Your task to perform on an android device: toggle javascript in the chrome app Image 0: 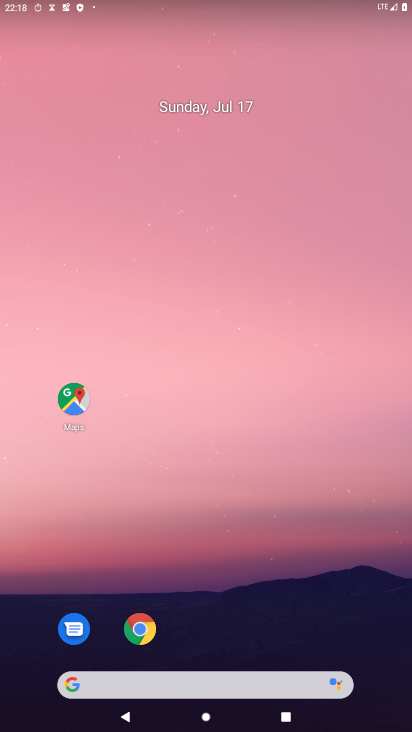
Step 0: drag from (242, 727) to (254, 41)
Your task to perform on an android device: toggle javascript in the chrome app Image 1: 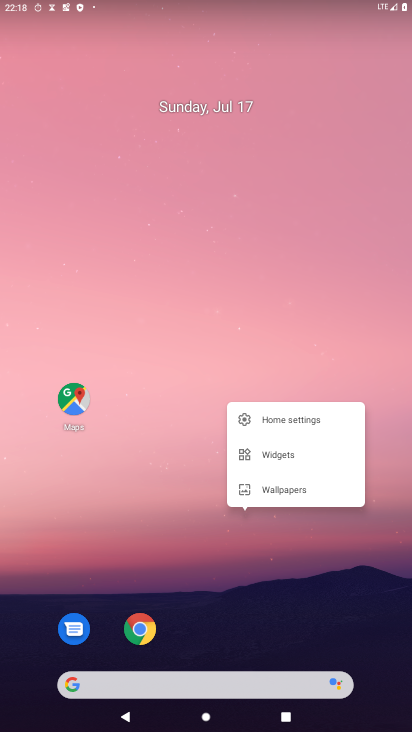
Step 1: click (154, 301)
Your task to perform on an android device: toggle javascript in the chrome app Image 2: 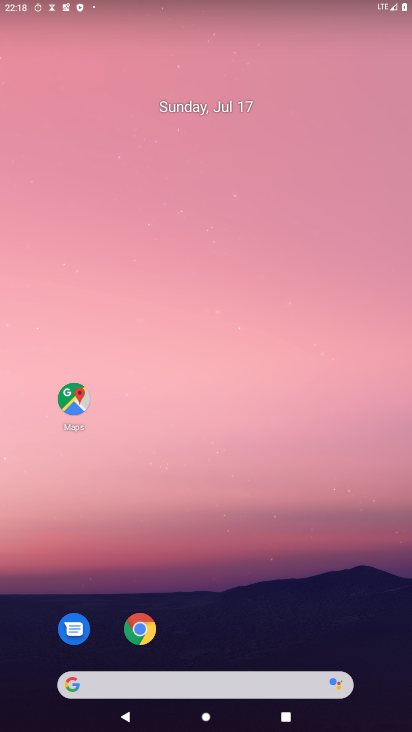
Step 2: click (139, 624)
Your task to perform on an android device: toggle javascript in the chrome app Image 3: 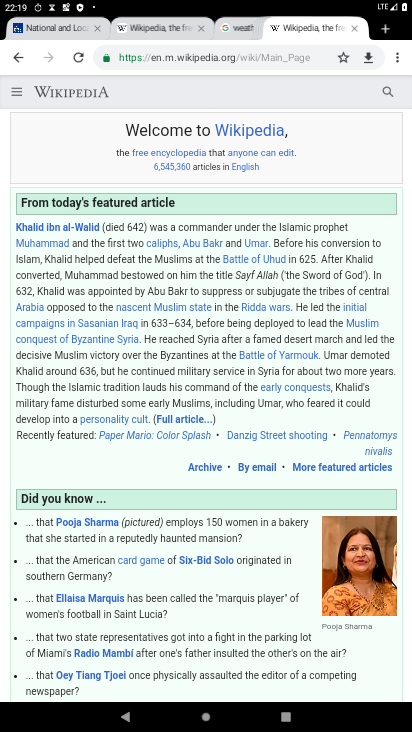
Step 3: click (397, 61)
Your task to perform on an android device: toggle javascript in the chrome app Image 4: 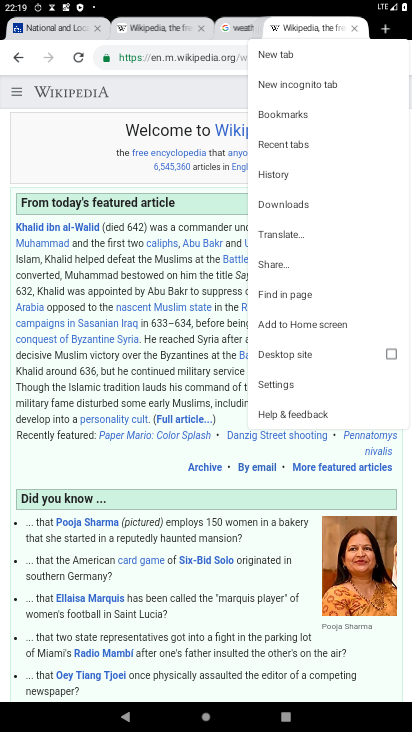
Step 4: click (275, 384)
Your task to perform on an android device: toggle javascript in the chrome app Image 5: 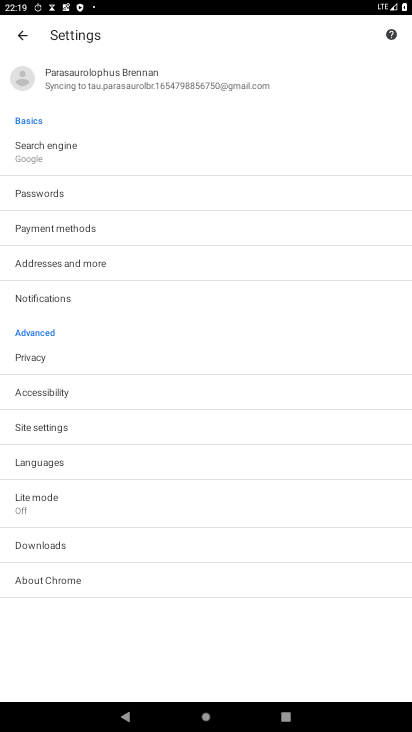
Step 5: click (37, 426)
Your task to perform on an android device: toggle javascript in the chrome app Image 6: 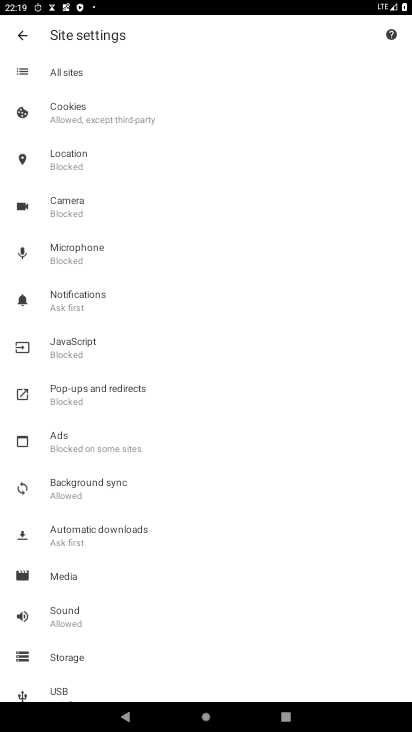
Step 6: click (62, 346)
Your task to perform on an android device: toggle javascript in the chrome app Image 7: 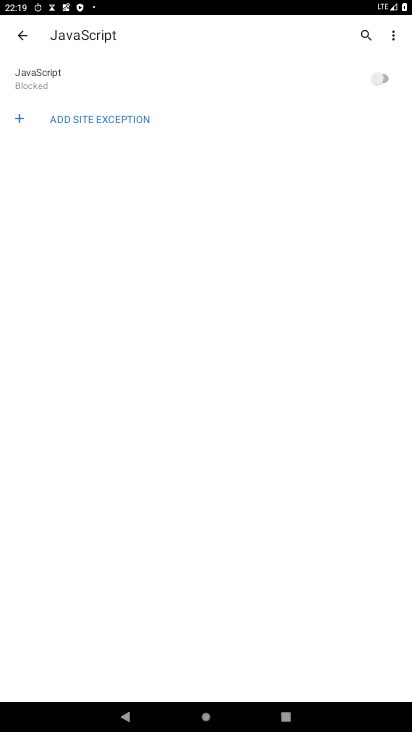
Step 7: click (387, 74)
Your task to perform on an android device: toggle javascript in the chrome app Image 8: 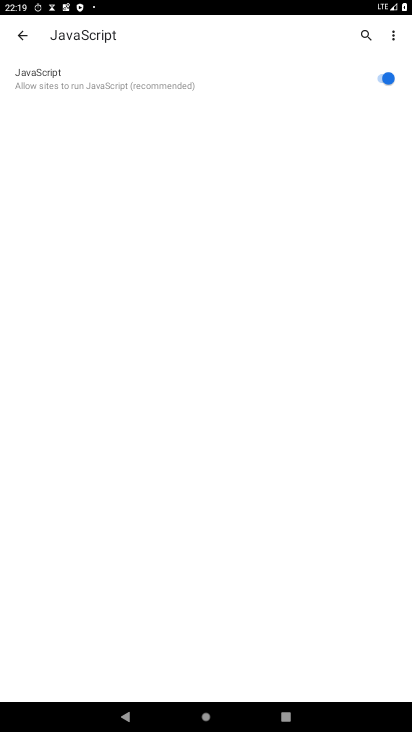
Step 8: task complete